Your task to perform on an android device: delete browsing data in the chrome app Image 0: 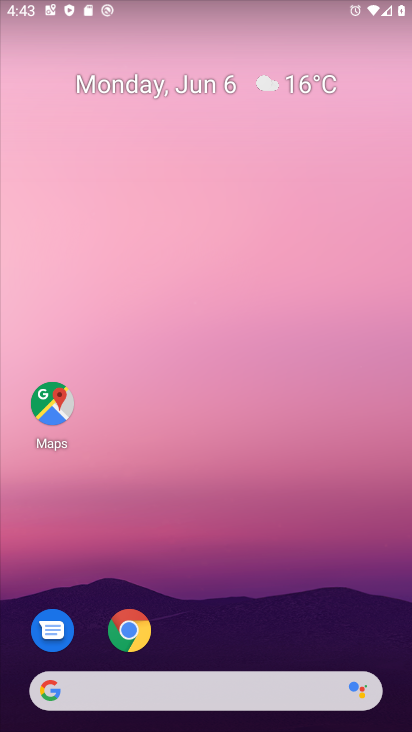
Step 0: click (136, 642)
Your task to perform on an android device: delete browsing data in the chrome app Image 1: 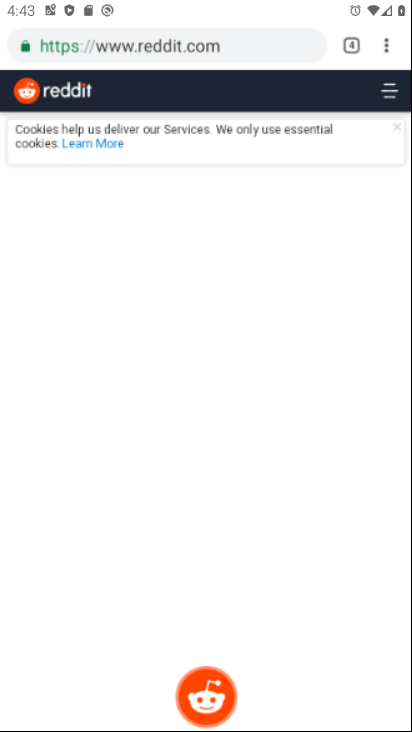
Step 1: click (386, 40)
Your task to perform on an android device: delete browsing data in the chrome app Image 2: 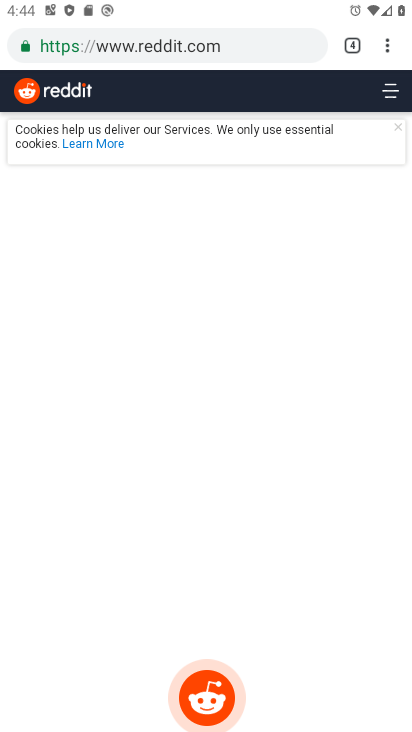
Step 2: click (382, 44)
Your task to perform on an android device: delete browsing data in the chrome app Image 3: 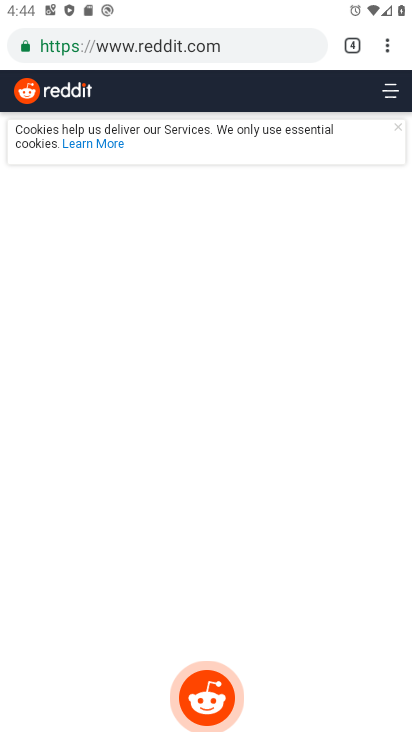
Step 3: click (385, 41)
Your task to perform on an android device: delete browsing data in the chrome app Image 4: 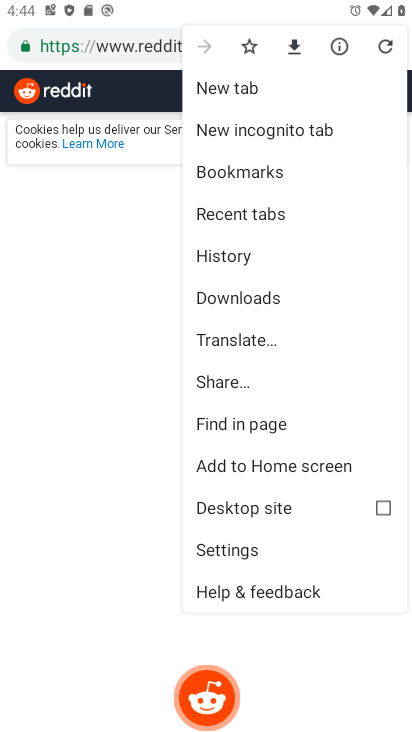
Step 4: click (267, 540)
Your task to perform on an android device: delete browsing data in the chrome app Image 5: 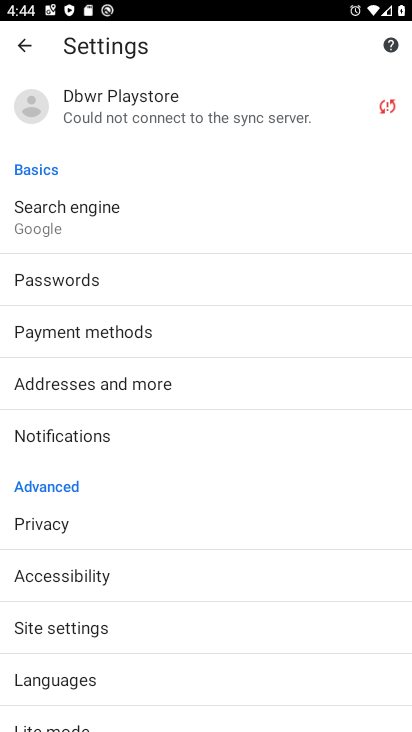
Step 5: click (23, 47)
Your task to perform on an android device: delete browsing data in the chrome app Image 6: 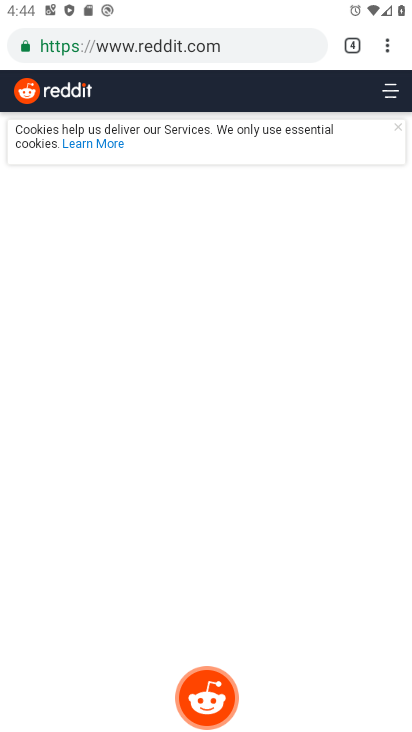
Step 6: click (394, 45)
Your task to perform on an android device: delete browsing data in the chrome app Image 7: 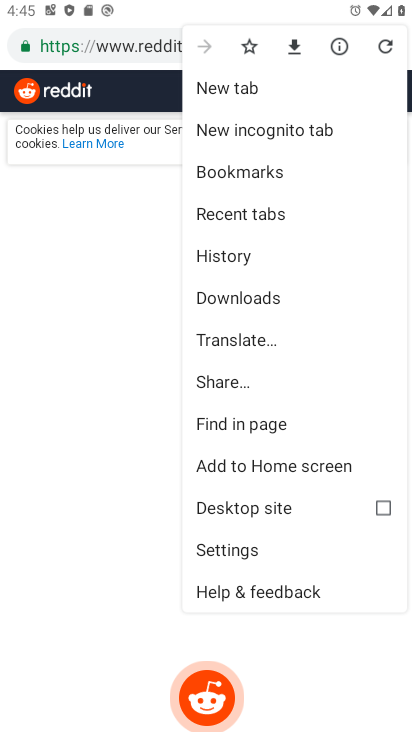
Step 7: click (211, 266)
Your task to perform on an android device: delete browsing data in the chrome app Image 8: 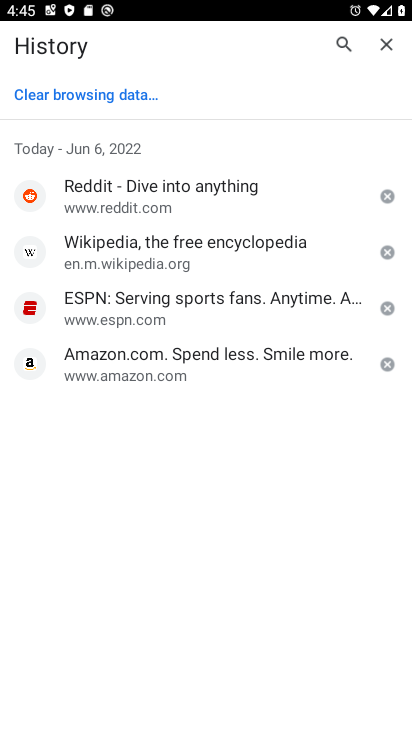
Step 8: click (105, 94)
Your task to perform on an android device: delete browsing data in the chrome app Image 9: 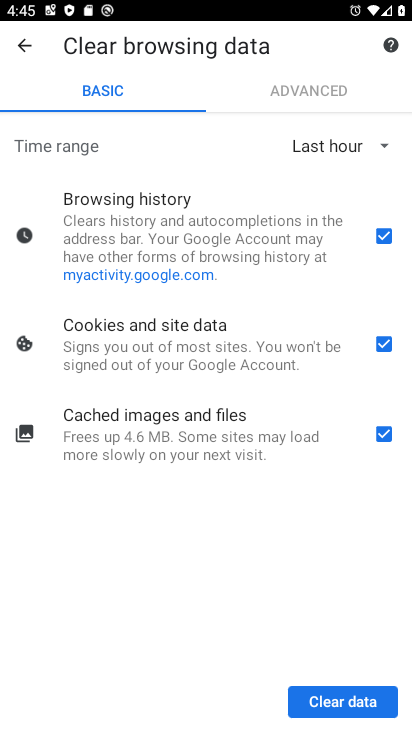
Step 9: click (346, 701)
Your task to perform on an android device: delete browsing data in the chrome app Image 10: 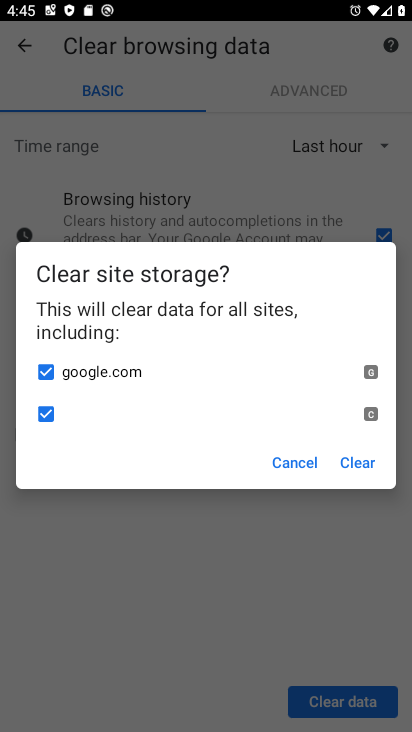
Step 10: click (359, 455)
Your task to perform on an android device: delete browsing data in the chrome app Image 11: 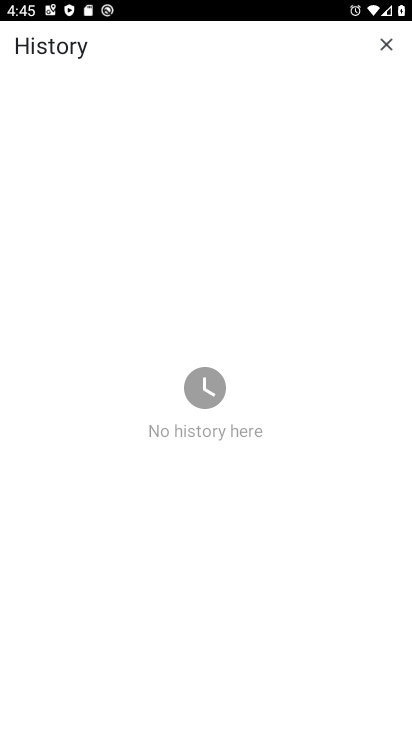
Step 11: task complete